Your task to perform on an android device: refresh tabs in the chrome app Image 0: 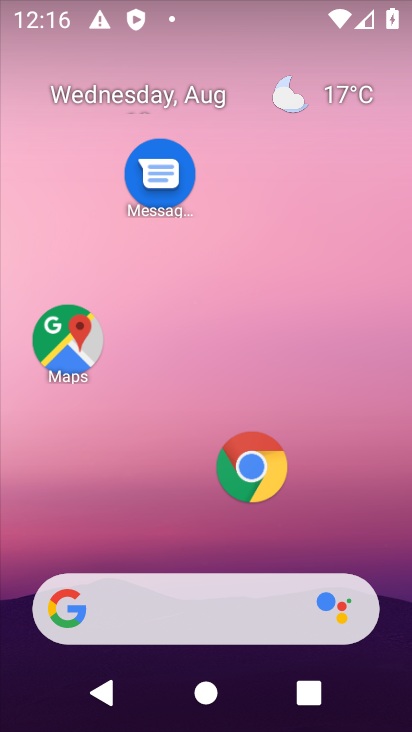
Step 0: click (270, 456)
Your task to perform on an android device: refresh tabs in the chrome app Image 1: 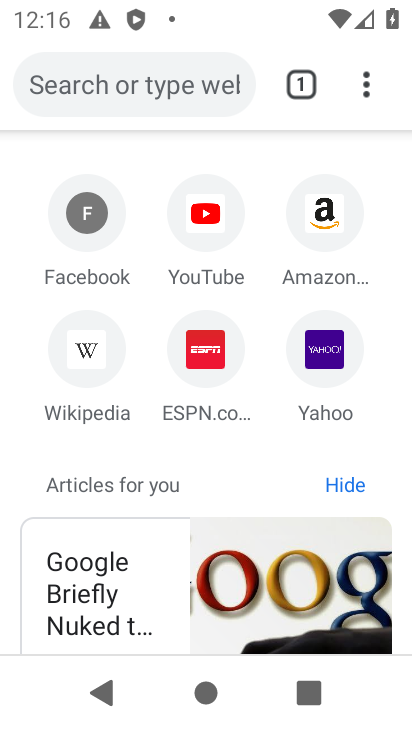
Step 1: click (385, 88)
Your task to perform on an android device: refresh tabs in the chrome app Image 2: 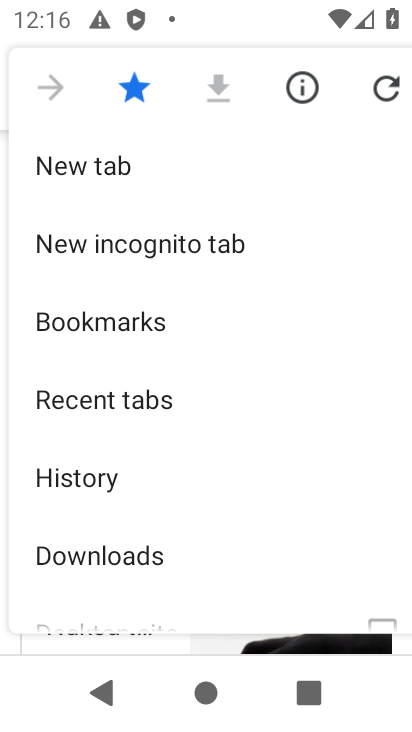
Step 2: click (385, 88)
Your task to perform on an android device: refresh tabs in the chrome app Image 3: 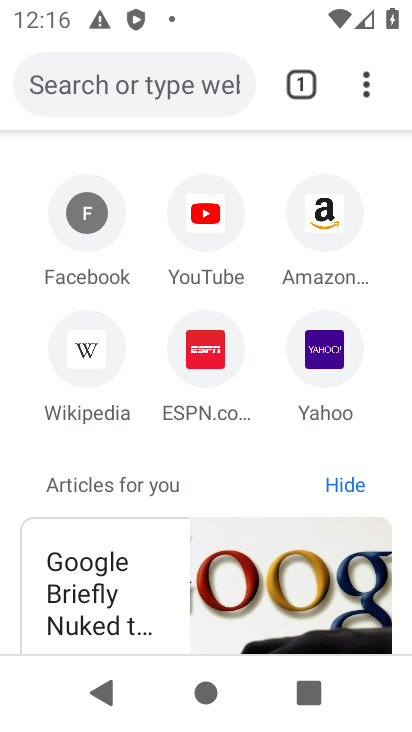
Step 3: task complete